Your task to perform on an android device: Open settings Image 0: 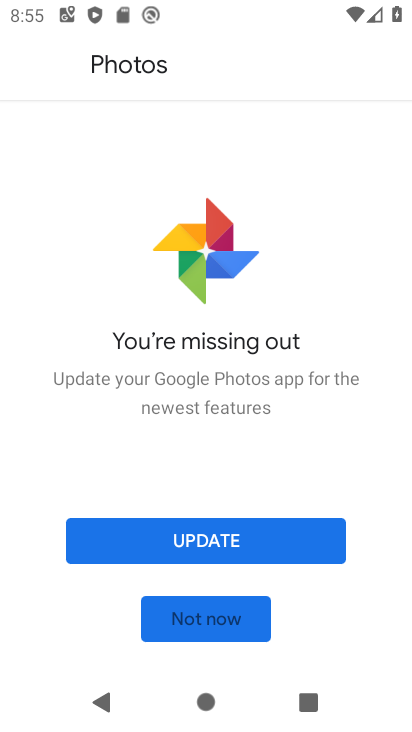
Step 0: press home button
Your task to perform on an android device: Open settings Image 1: 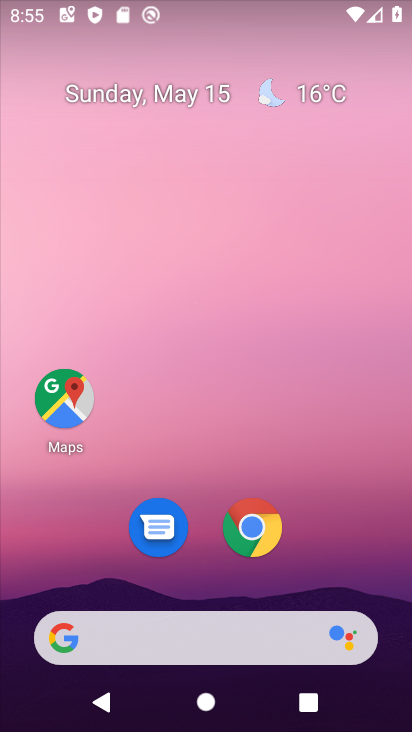
Step 1: drag from (333, 585) to (307, 0)
Your task to perform on an android device: Open settings Image 2: 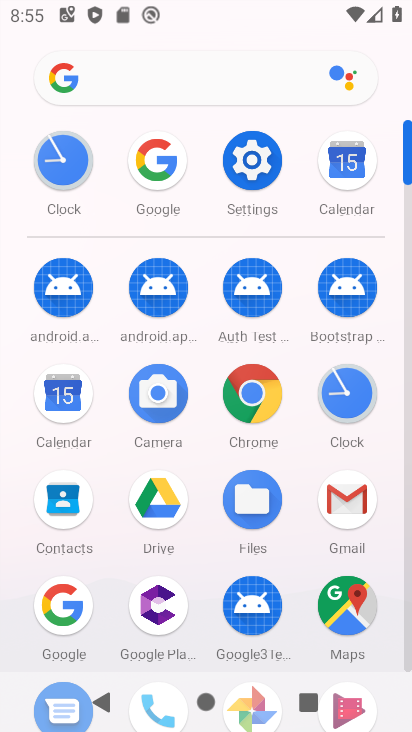
Step 2: click (256, 164)
Your task to perform on an android device: Open settings Image 3: 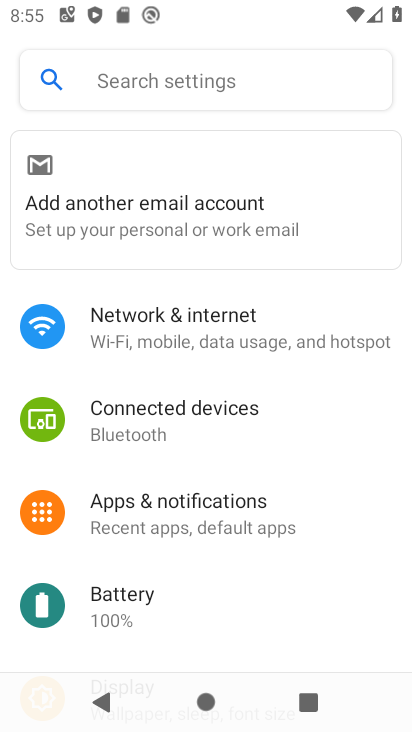
Step 3: task complete